Your task to perform on an android device: toggle location history Image 0: 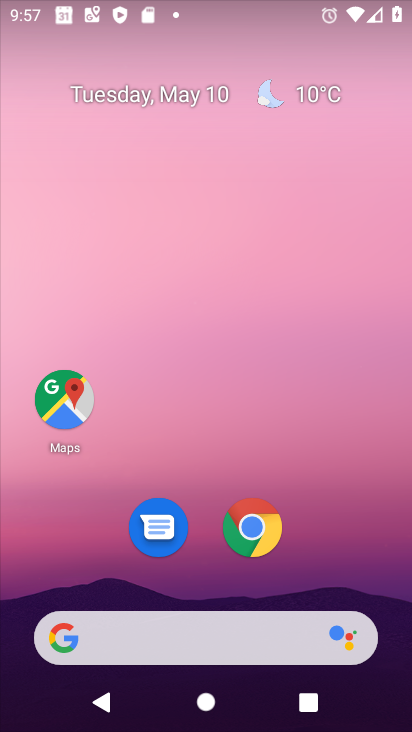
Step 0: drag from (182, 730) to (183, 126)
Your task to perform on an android device: toggle location history Image 1: 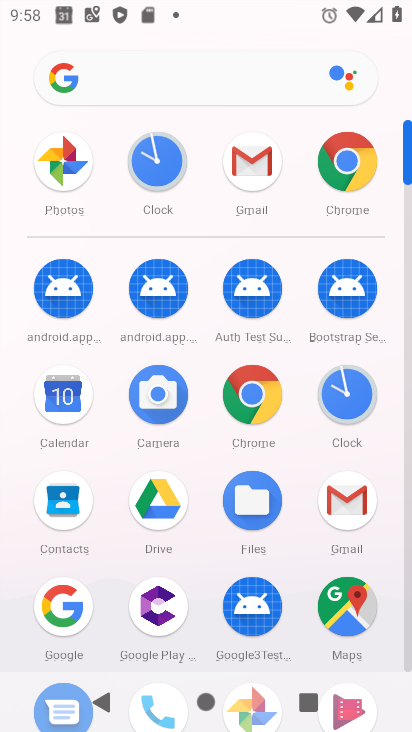
Step 1: drag from (107, 585) to (107, 193)
Your task to perform on an android device: toggle location history Image 2: 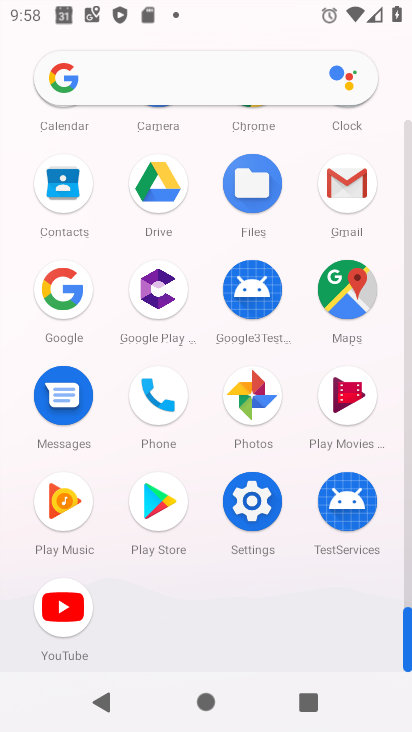
Step 2: click (255, 497)
Your task to perform on an android device: toggle location history Image 3: 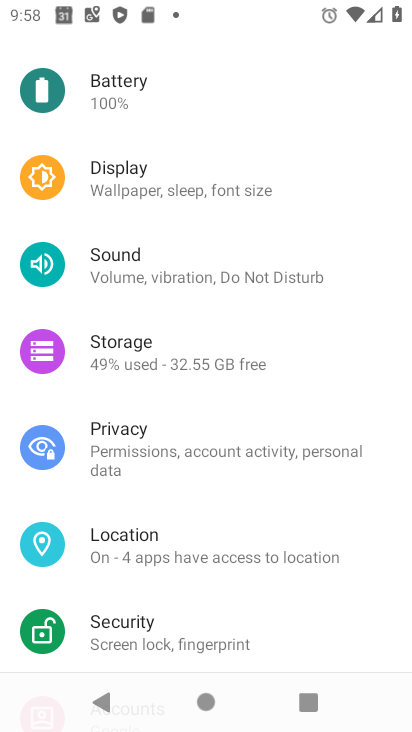
Step 3: click (135, 547)
Your task to perform on an android device: toggle location history Image 4: 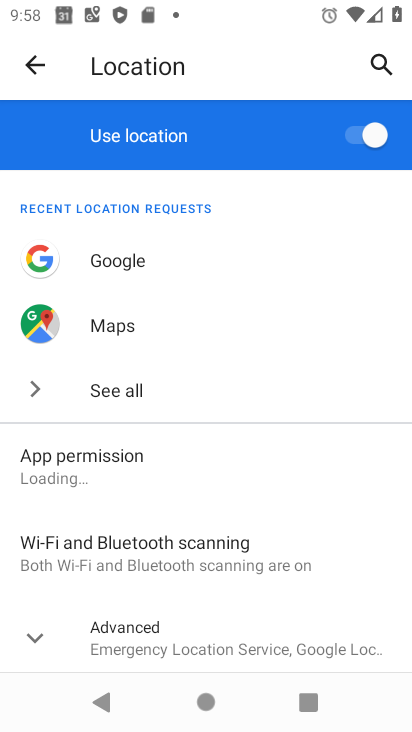
Step 4: drag from (179, 608) to (189, 308)
Your task to perform on an android device: toggle location history Image 5: 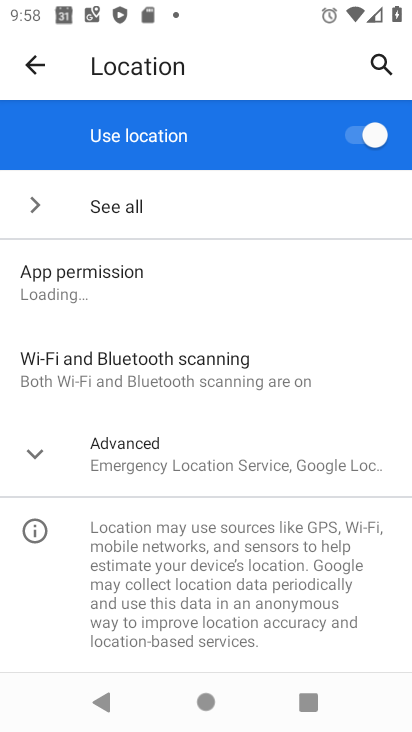
Step 5: click (115, 460)
Your task to perform on an android device: toggle location history Image 6: 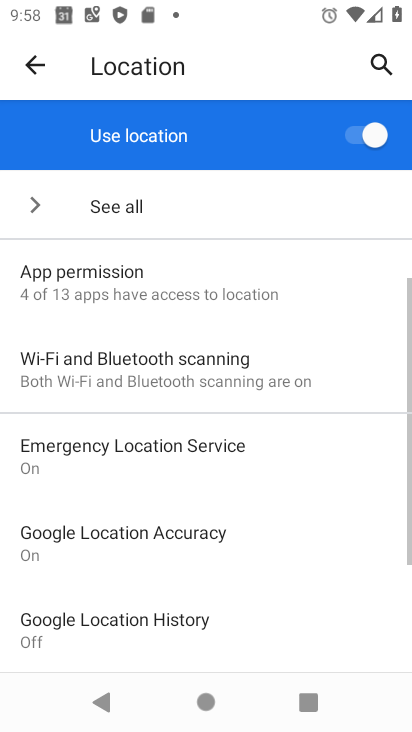
Step 6: click (173, 616)
Your task to perform on an android device: toggle location history Image 7: 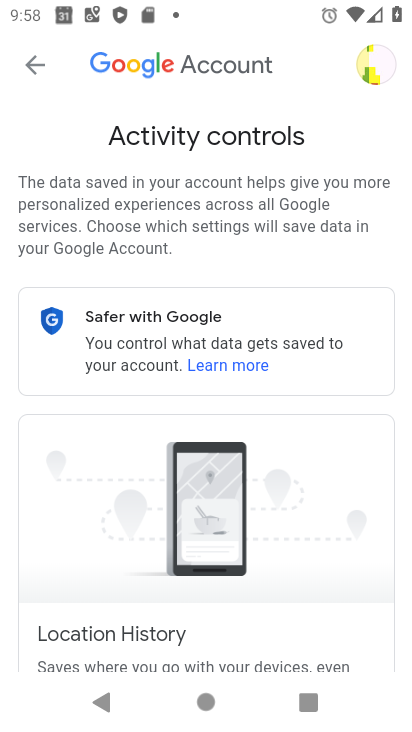
Step 7: drag from (256, 629) to (259, 257)
Your task to perform on an android device: toggle location history Image 8: 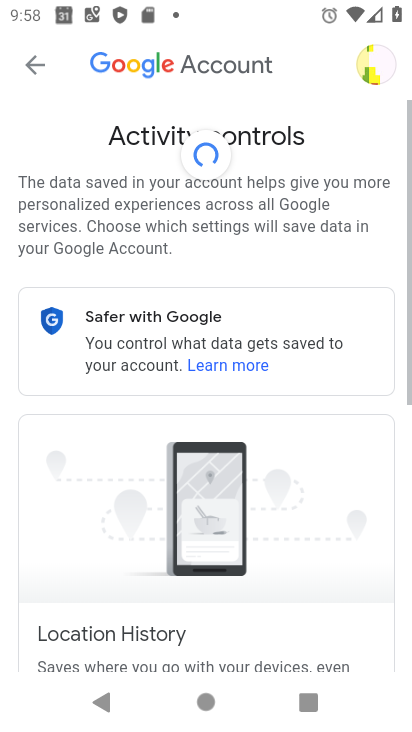
Step 8: click (312, 440)
Your task to perform on an android device: toggle location history Image 9: 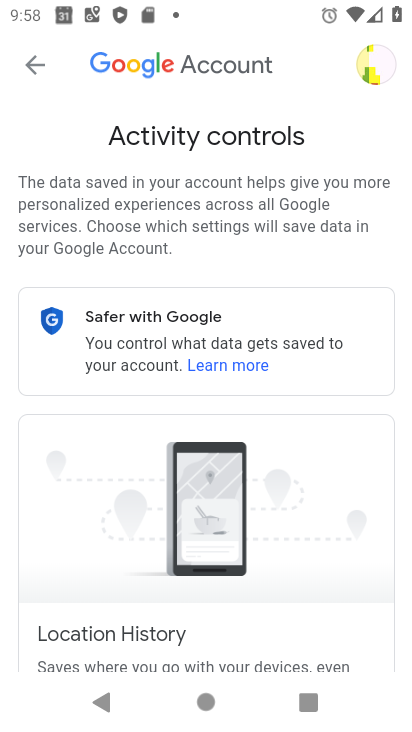
Step 9: drag from (255, 629) to (257, 261)
Your task to perform on an android device: toggle location history Image 10: 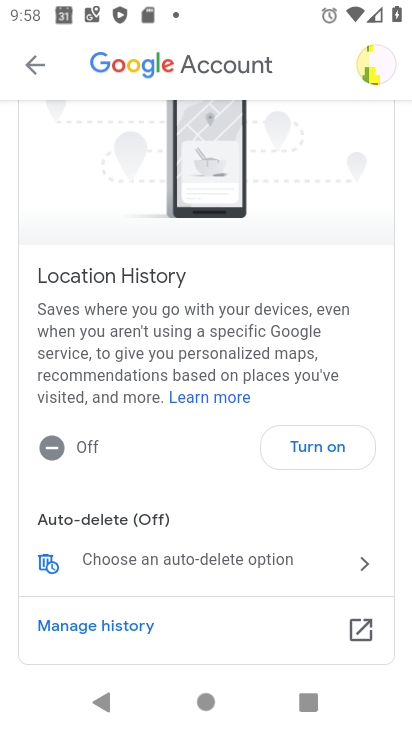
Step 10: click (310, 455)
Your task to perform on an android device: toggle location history Image 11: 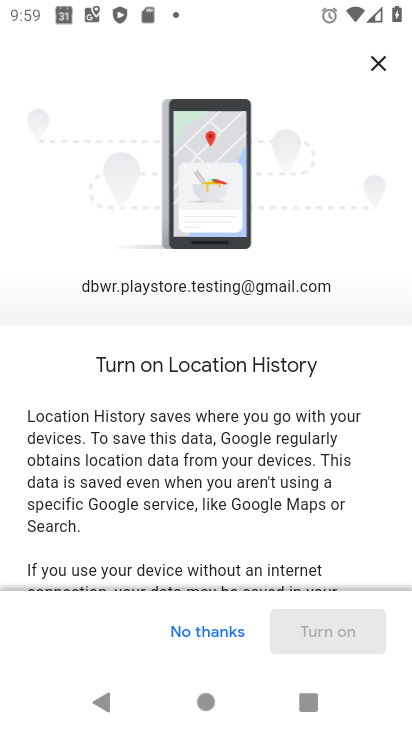
Step 11: drag from (251, 544) to (241, 144)
Your task to perform on an android device: toggle location history Image 12: 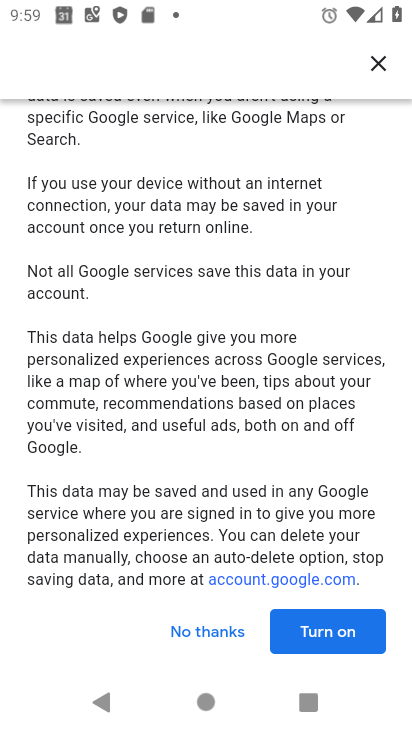
Step 12: drag from (255, 558) to (259, 167)
Your task to perform on an android device: toggle location history Image 13: 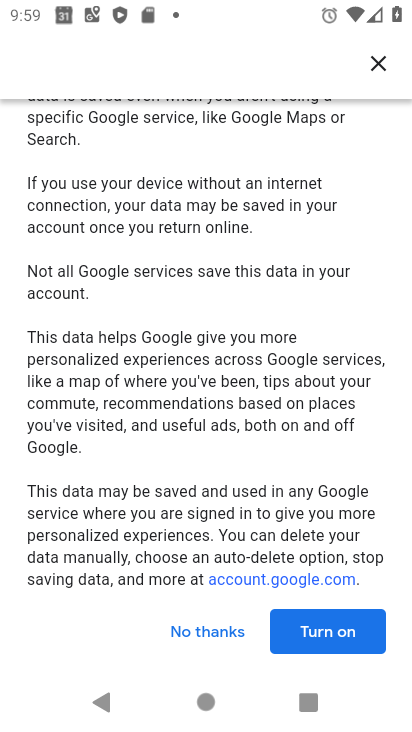
Step 13: click (312, 629)
Your task to perform on an android device: toggle location history Image 14: 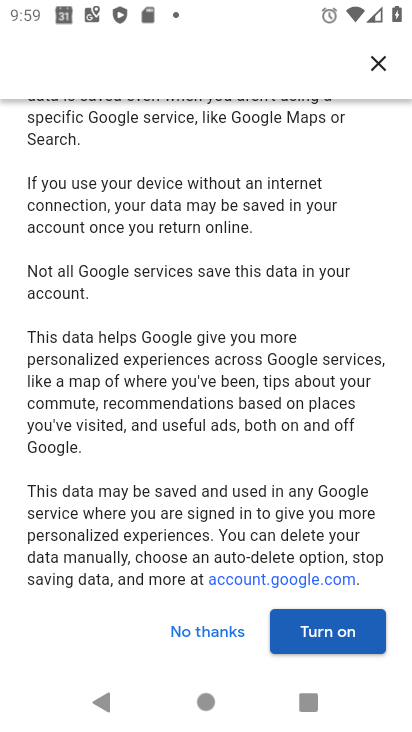
Step 14: click (323, 623)
Your task to perform on an android device: toggle location history Image 15: 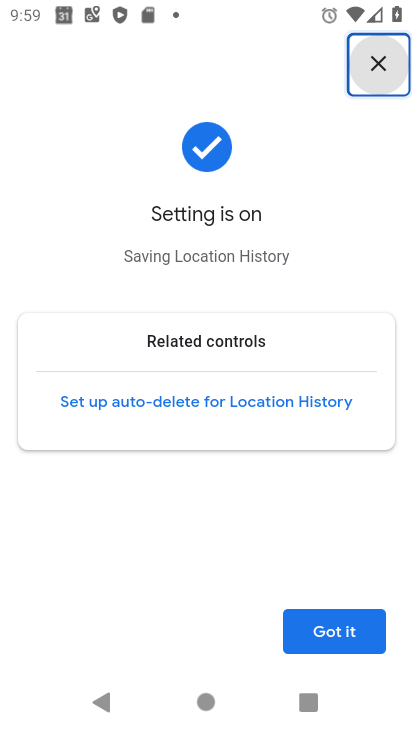
Step 15: task complete